Your task to perform on an android device: change keyboard looks Image 0: 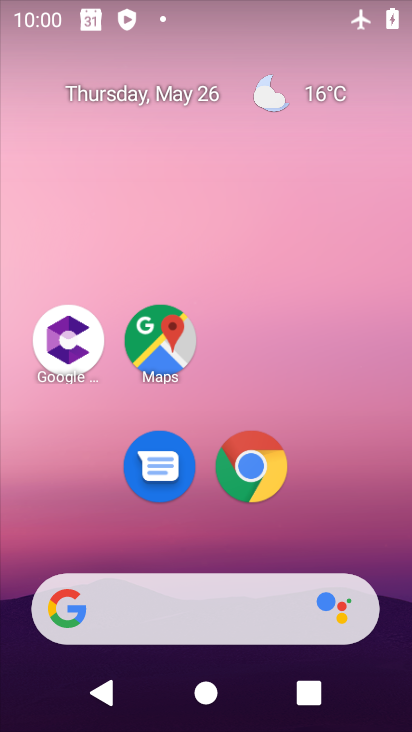
Step 0: click (189, 17)
Your task to perform on an android device: change keyboard looks Image 1: 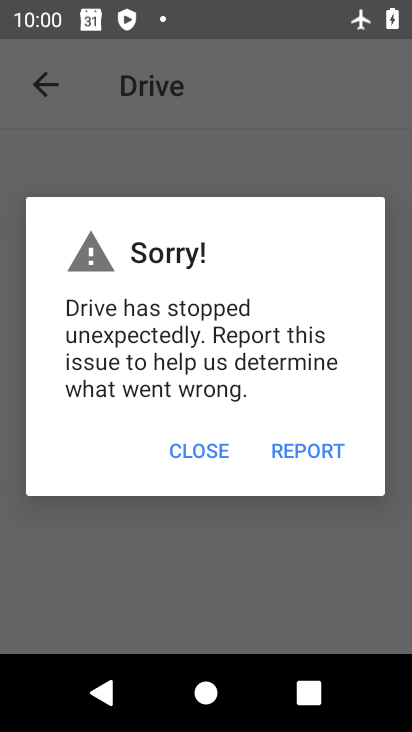
Step 1: press home button
Your task to perform on an android device: change keyboard looks Image 2: 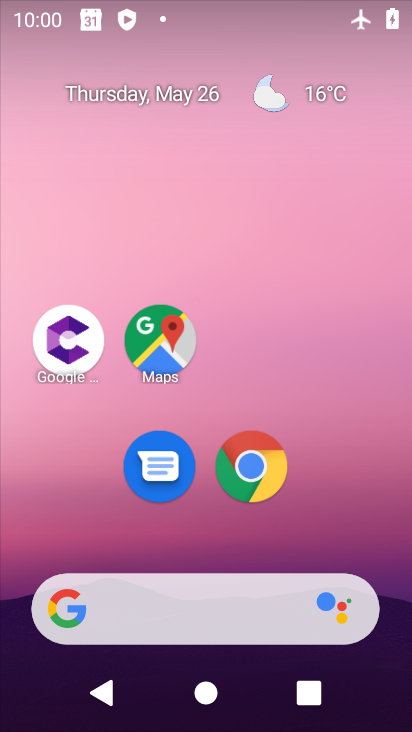
Step 2: drag from (340, 503) to (234, 56)
Your task to perform on an android device: change keyboard looks Image 3: 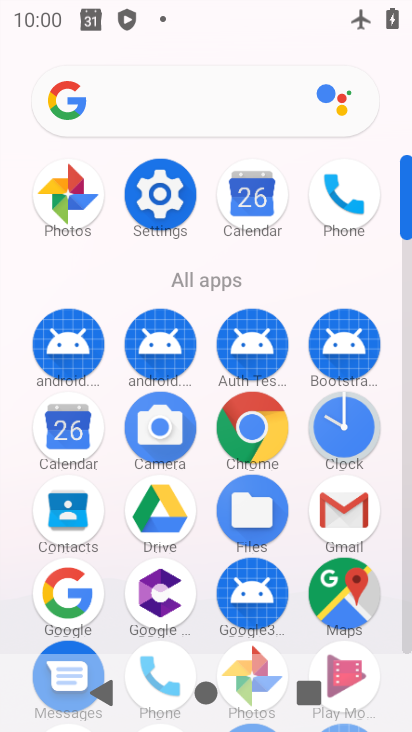
Step 3: click (155, 183)
Your task to perform on an android device: change keyboard looks Image 4: 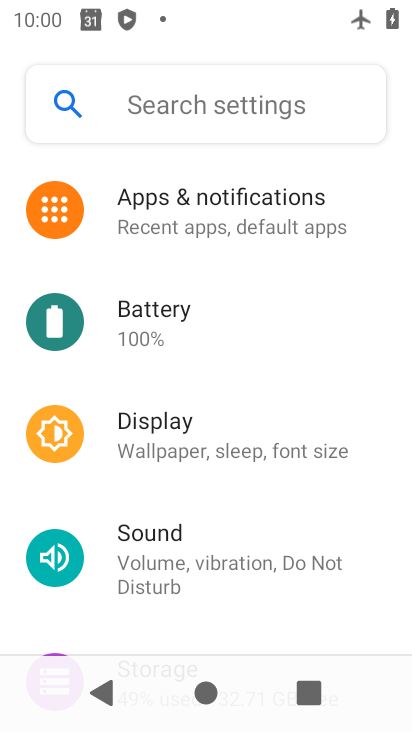
Step 4: drag from (159, 501) to (134, 161)
Your task to perform on an android device: change keyboard looks Image 5: 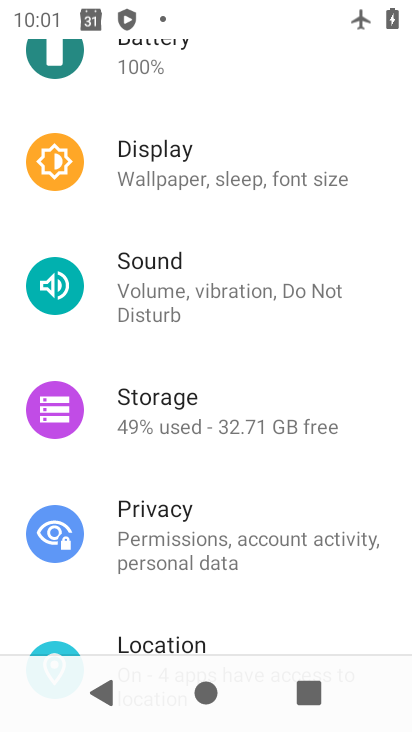
Step 5: drag from (189, 573) to (169, 281)
Your task to perform on an android device: change keyboard looks Image 6: 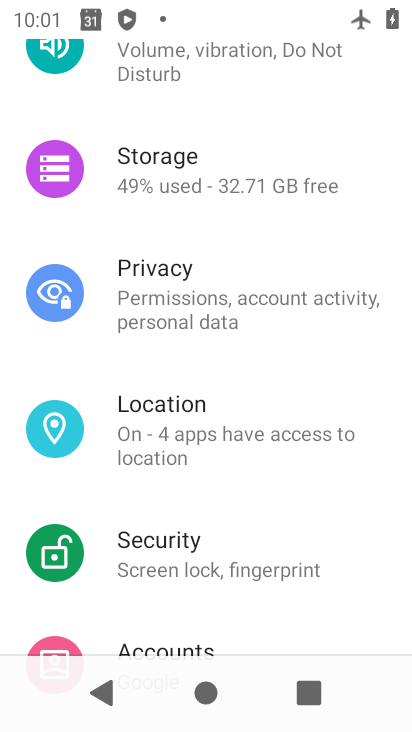
Step 6: drag from (166, 614) to (145, 260)
Your task to perform on an android device: change keyboard looks Image 7: 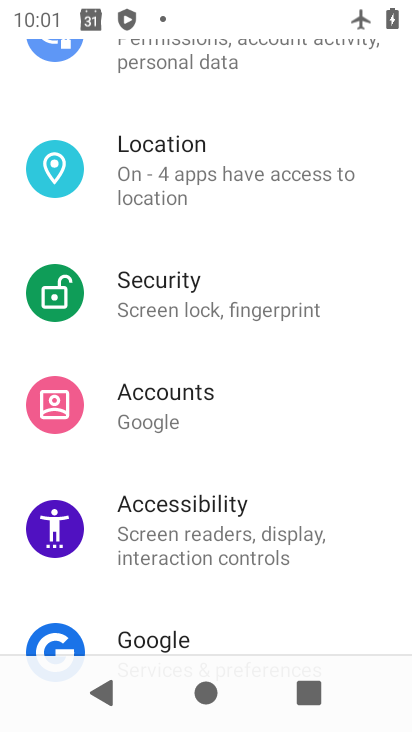
Step 7: drag from (148, 598) to (158, 241)
Your task to perform on an android device: change keyboard looks Image 8: 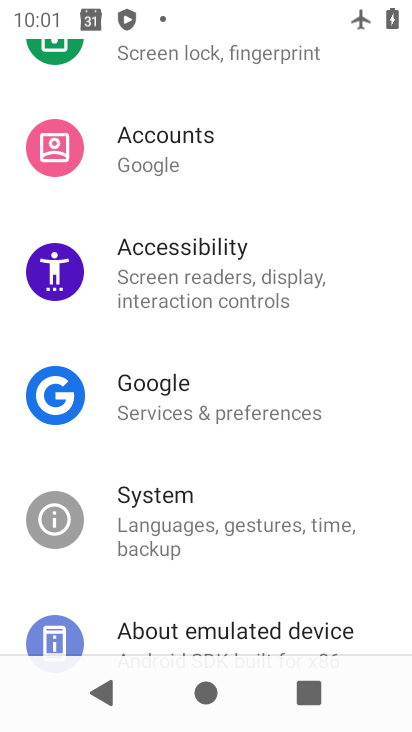
Step 8: drag from (164, 574) to (130, 234)
Your task to perform on an android device: change keyboard looks Image 9: 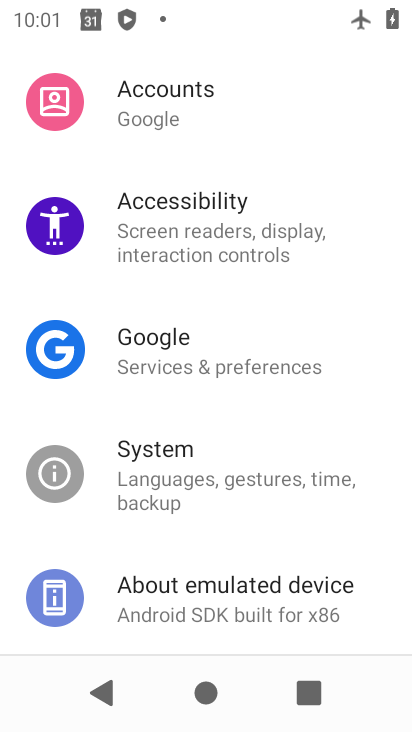
Step 9: click (198, 576)
Your task to perform on an android device: change keyboard looks Image 10: 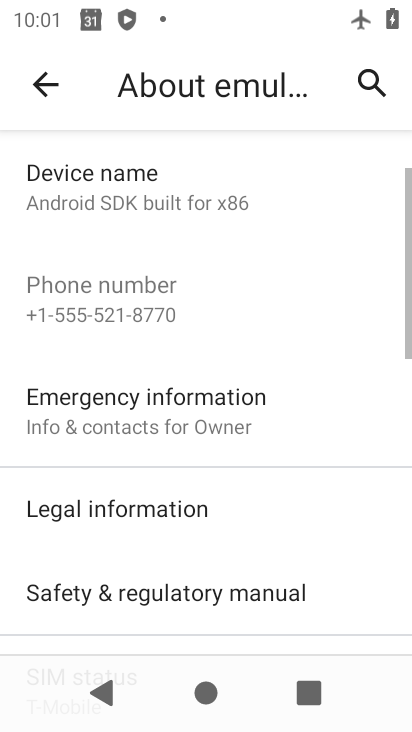
Step 10: drag from (232, 471) to (158, 186)
Your task to perform on an android device: change keyboard looks Image 11: 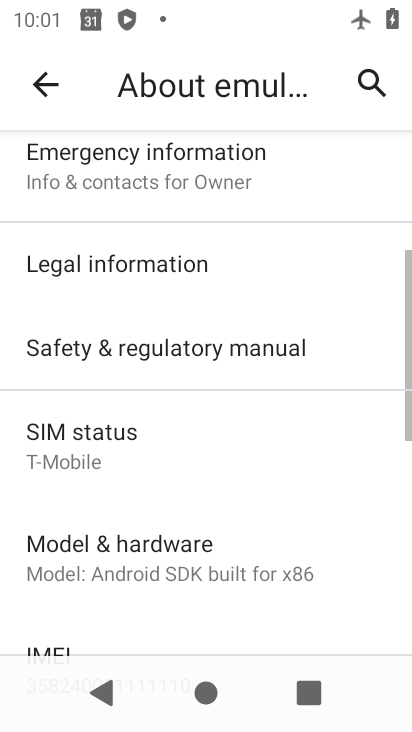
Step 11: click (45, 83)
Your task to perform on an android device: change keyboard looks Image 12: 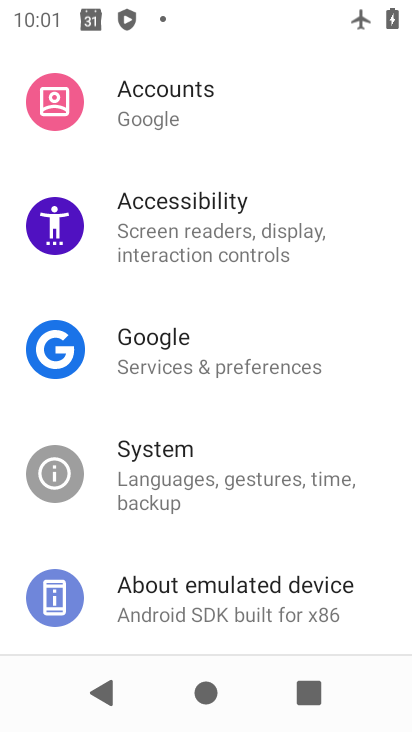
Step 12: drag from (244, 525) to (208, 296)
Your task to perform on an android device: change keyboard looks Image 13: 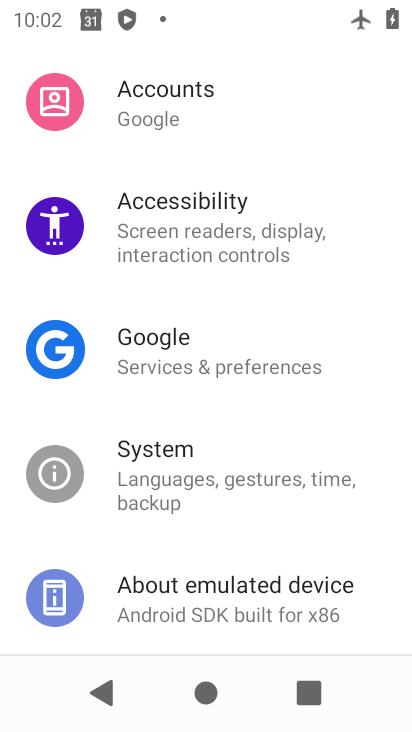
Step 13: click (156, 449)
Your task to perform on an android device: change keyboard looks Image 14: 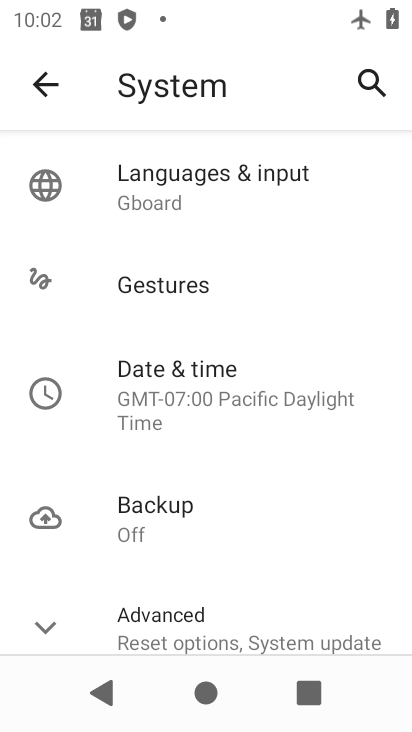
Step 14: click (157, 187)
Your task to perform on an android device: change keyboard looks Image 15: 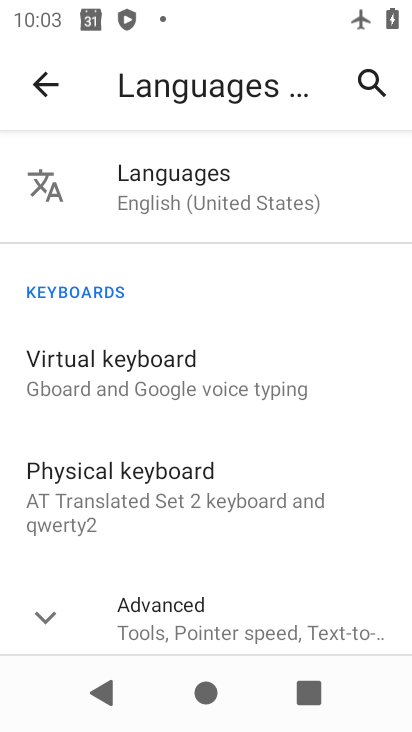
Step 15: click (136, 366)
Your task to perform on an android device: change keyboard looks Image 16: 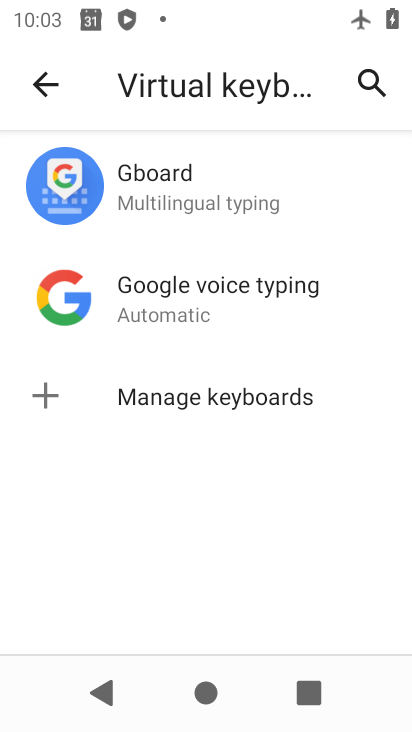
Step 16: click (150, 175)
Your task to perform on an android device: change keyboard looks Image 17: 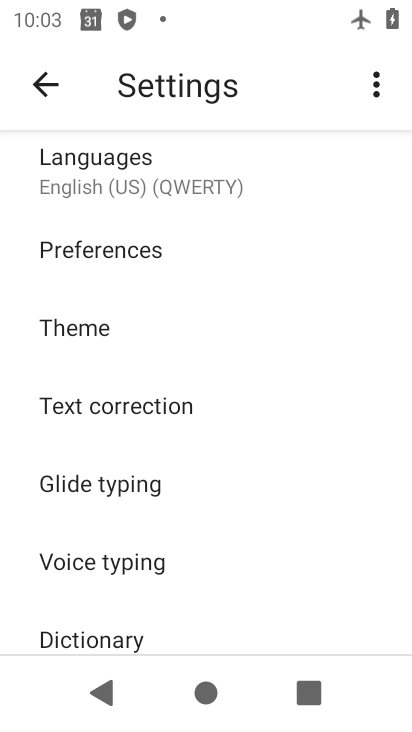
Step 17: click (86, 328)
Your task to perform on an android device: change keyboard looks Image 18: 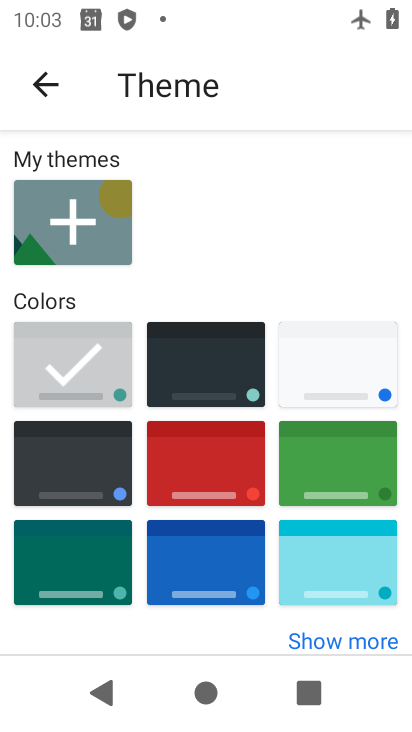
Step 18: click (200, 370)
Your task to perform on an android device: change keyboard looks Image 19: 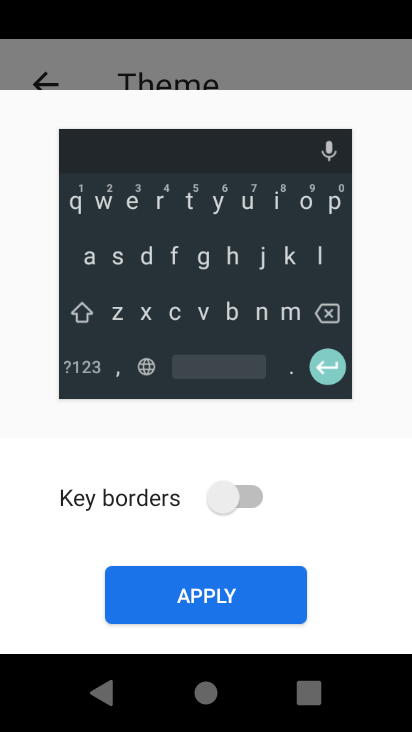
Step 19: click (221, 596)
Your task to perform on an android device: change keyboard looks Image 20: 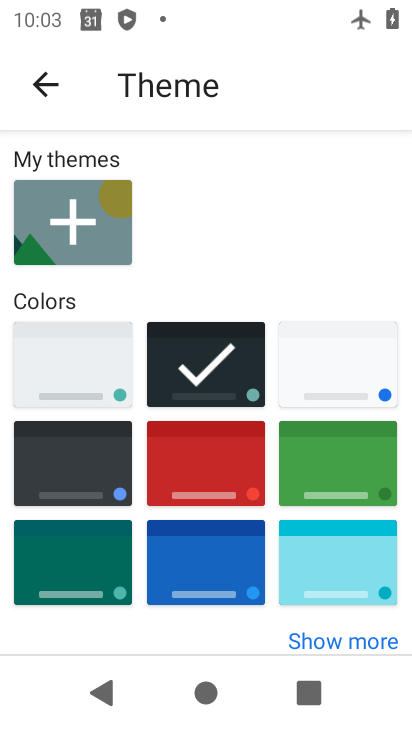
Step 20: task complete